Your task to perform on an android device: Go to internet settings Image 0: 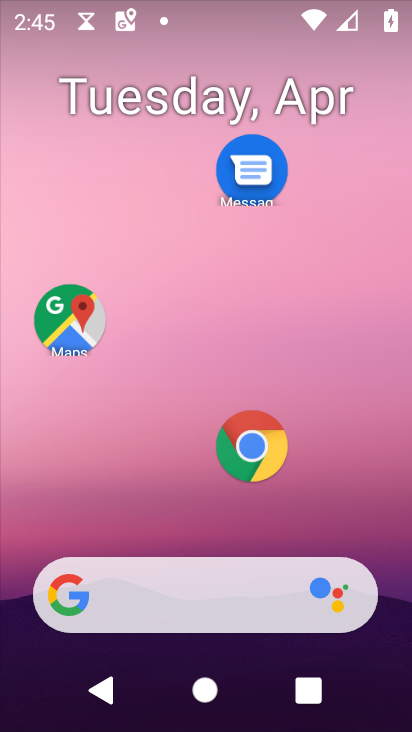
Step 0: drag from (210, 539) to (207, 4)
Your task to perform on an android device: Go to internet settings Image 1: 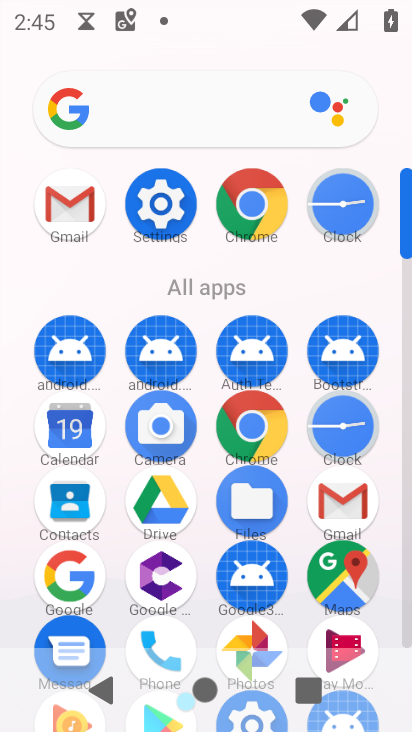
Step 1: click (152, 212)
Your task to perform on an android device: Go to internet settings Image 2: 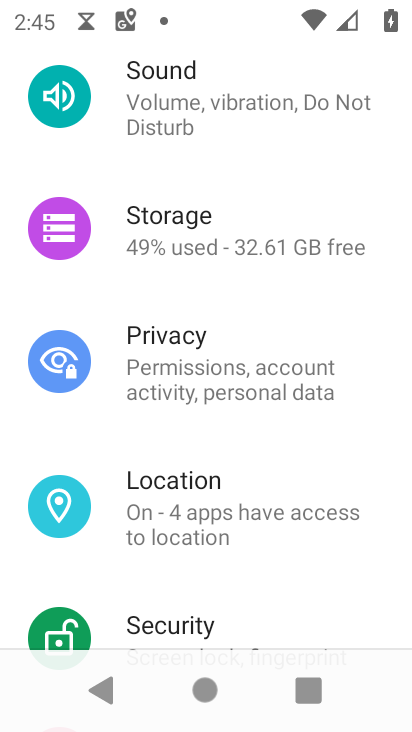
Step 2: drag from (227, 287) to (221, 691)
Your task to perform on an android device: Go to internet settings Image 3: 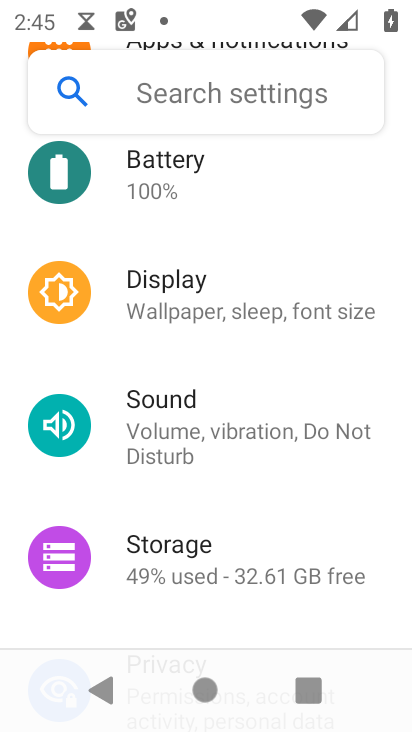
Step 3: drag from (234, 220) to (231, 697)
Your task to perform on an android device: Go to internet settings Image 4: 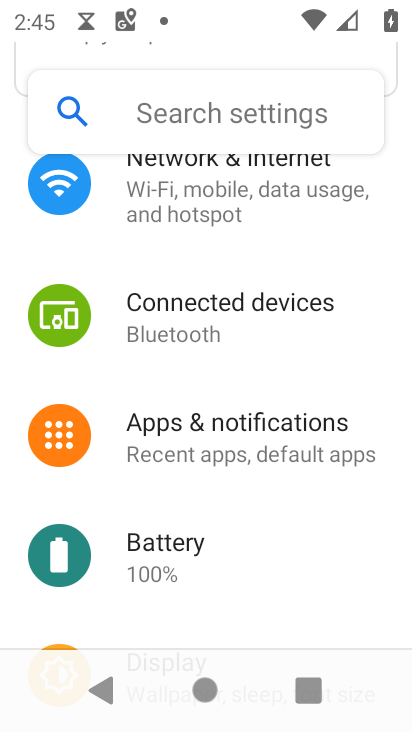
Step 4: click (221, 207)
Your task to perform on an android device: Go to internet settings Image 5: 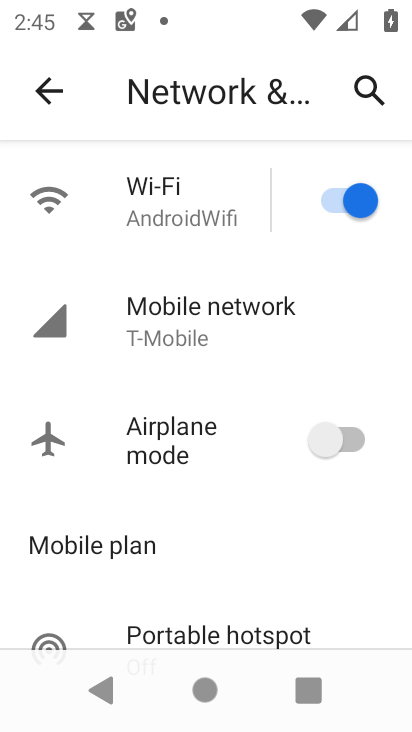
Step 5: task complete